Your task to perform on an android device: make emails show in primary in the gmail app Image 0: 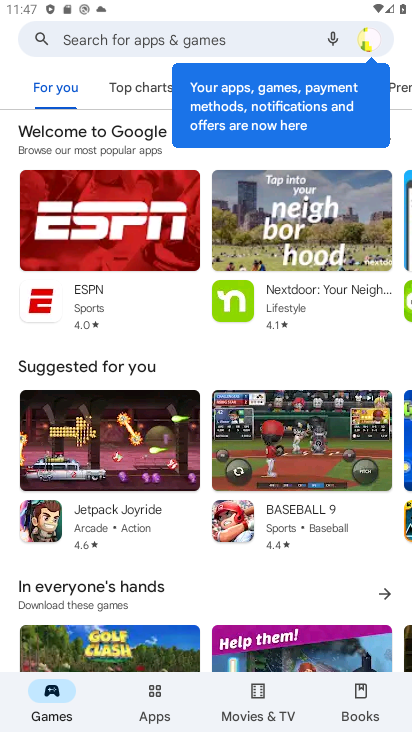
Step 0: press home button
Your task to perform on an android device: make emails show in primary in the gmail app Image 1: 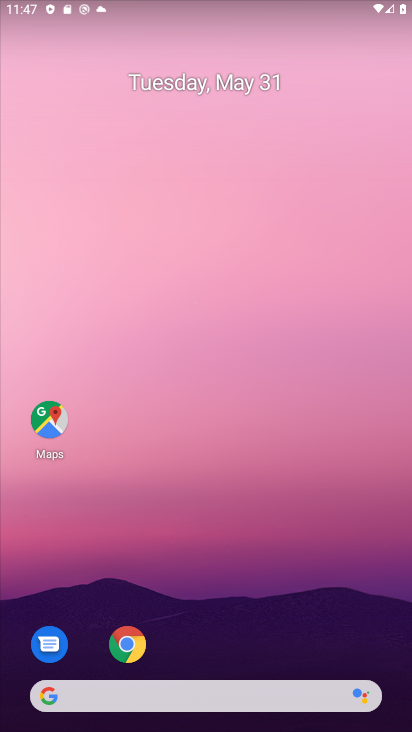
Step 1: drag from (261, 614) to (331, 138)
Your task to perform on an android device: make emails show in primary in the gmail app Image 2: 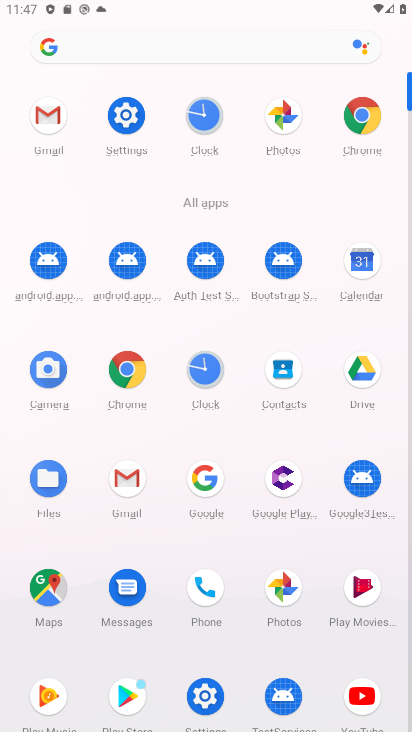
Step 2: click (125, 475)
Your task to perform on an android device: make emails show in primary in the gmail app Image 3: 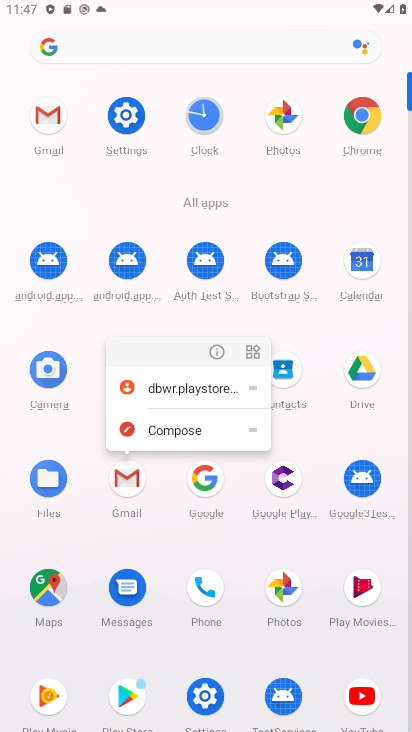
Step 3: click (125, 473)
Your task to perform on an android device: make emails show in primary in the gmail app Image 4: 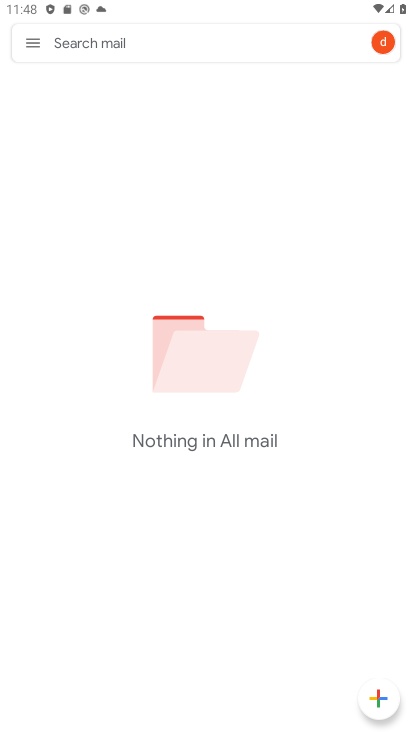
Step 4: click (30, 59)
Your task to perform on an android device: make emails show in primary in the gmail app Image 5: 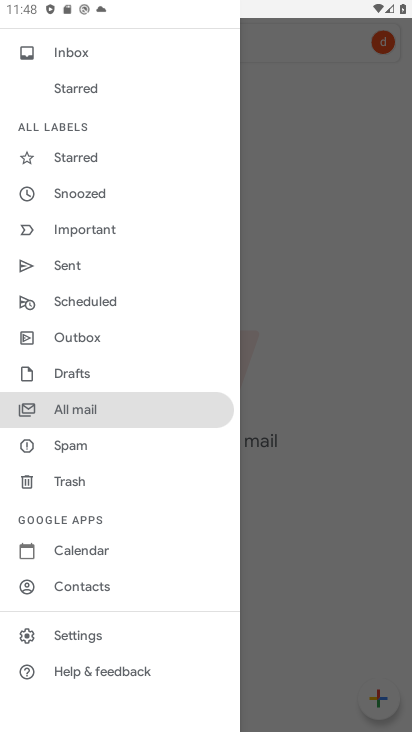
Step 5: click (97, 629)
Your task to perform on an android device: make emails show in primary in the gmail app Image 6: 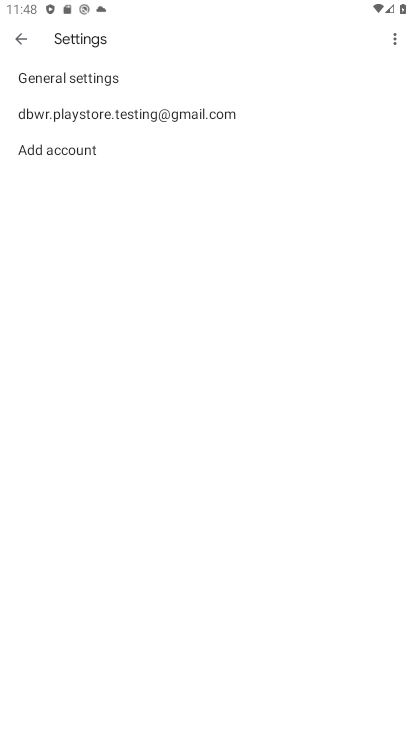
Step 6: click (47, 123)
Your task to perform on an android device: make emails show in primary in the gmail app Image 7: 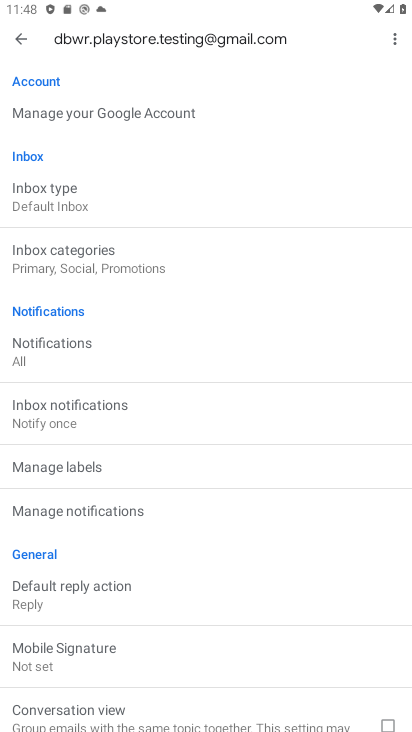
Step 7: click (71, 260)
Your task to perform on an android device: make emails show in primary in the gmail app Image 8: 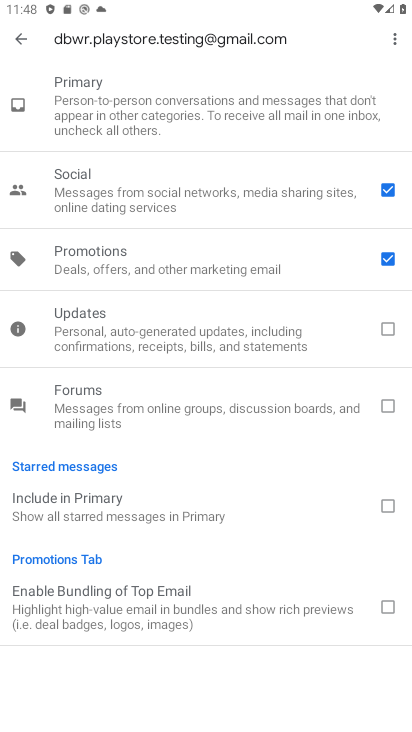
Step 8: drag from (279, 547) to (315, 307)
Your task to perform on an android device: make emails show in primary in the gmail app Image 9: 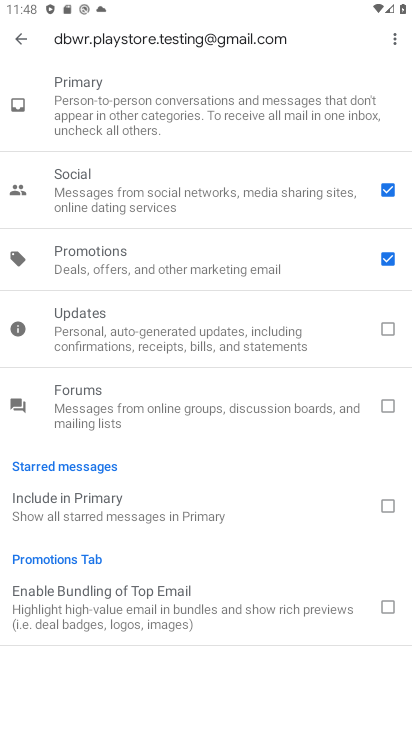
Step 9: click (388, 504)
Your task to perform on an android device: make emails show in primary in the gmail app Image 10: 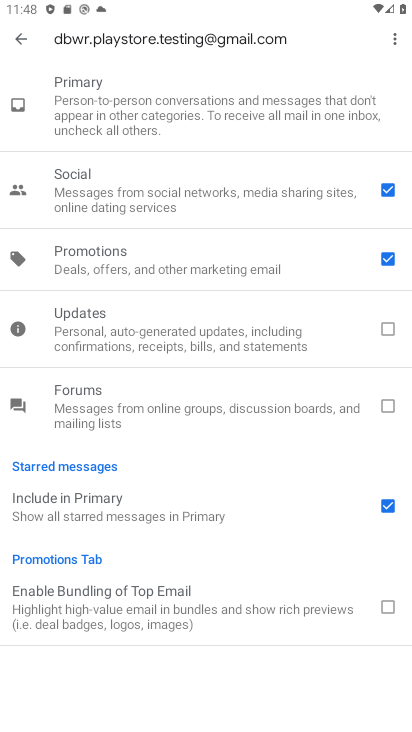
Step 10: task complete